Your task to perform on an android device: turn on data saver in the chrome app Image 0: 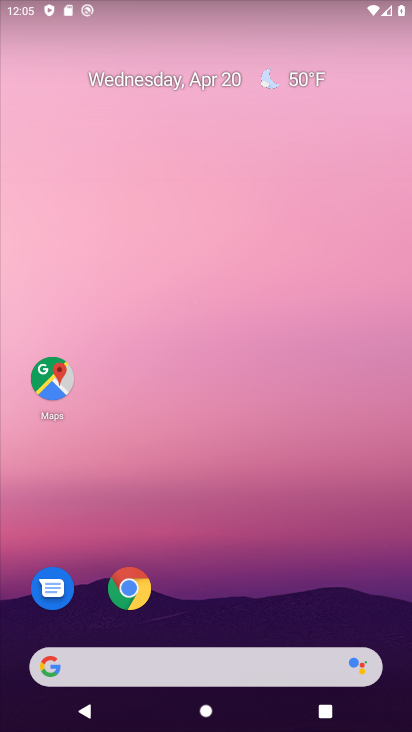
Step 0: click (129, 578)
Your task to perform on an android device: turn on data saver in the chrome app Image 1: 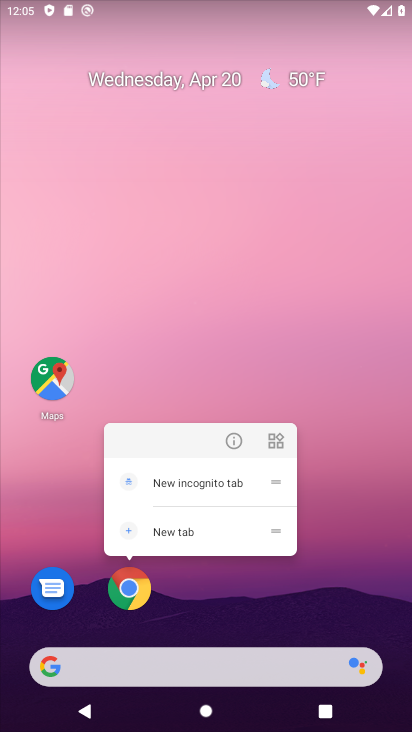
Step 1: click (129, 584)
Your task to perform on an android device: turn on data saver in the chrome app Image 2: 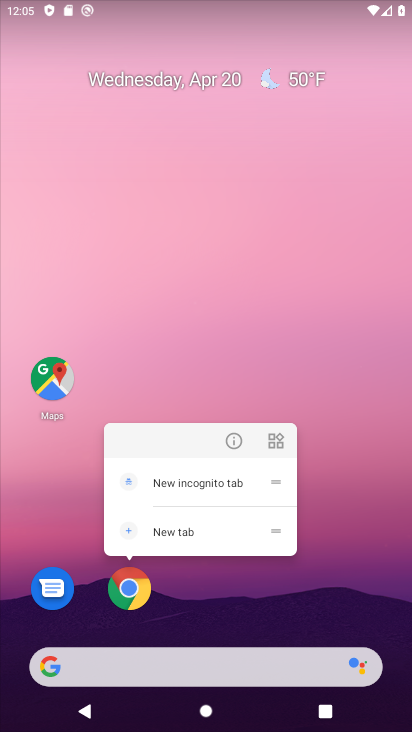
Step 2: click (130, 589)
Your task to perform on an android device: turn on data saver in the chrome app Image 3: 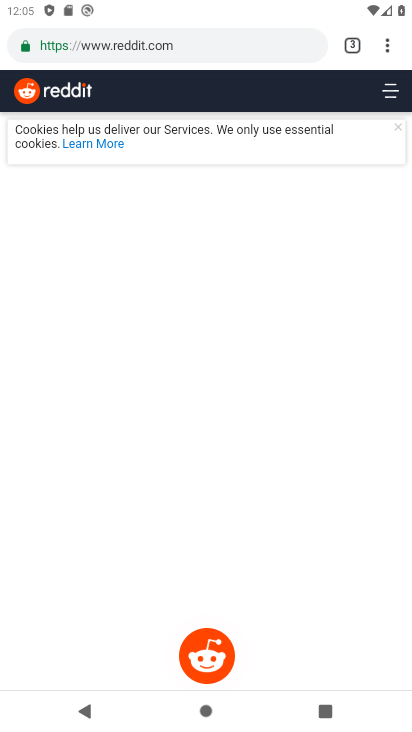
Step 3: click (387, 41)
Your task to perform on an android device: turn on data saver in the chrome app Image 4: 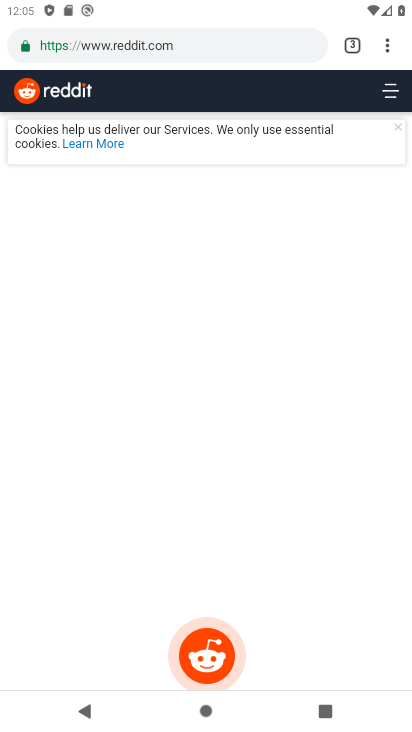
Step 4: click (386, 42)
Your task to perform on an android device: turn on data saver in the chrome app Image 5: 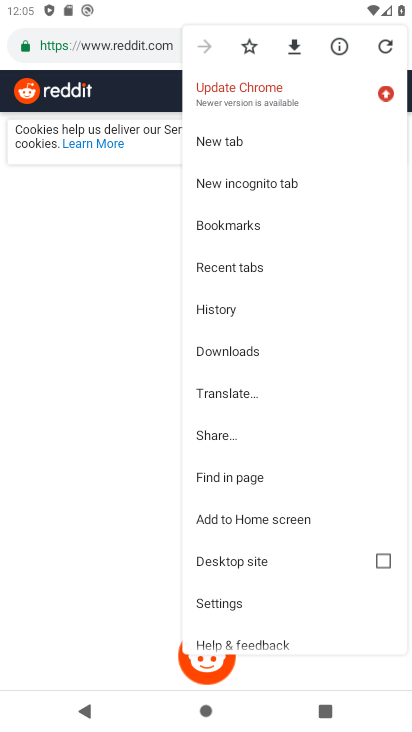
Step 5: click (244, 602)
Your task to perform on an android device: turn on data saver in the chrome app Image 6: 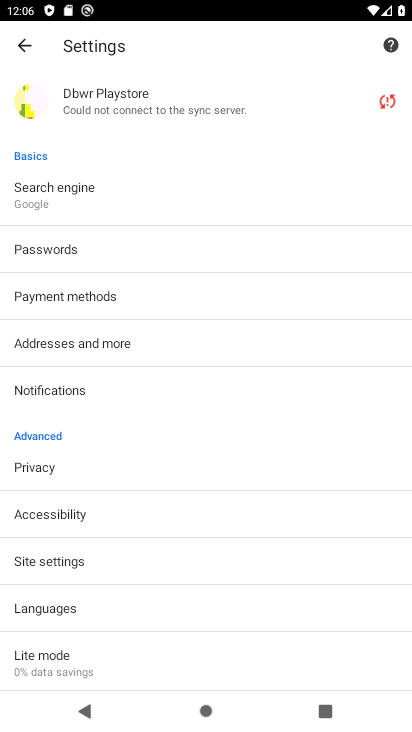
Step 6: click (96, 658)
Your task to perform on an android device: turn on data saver in the chrome app Image 7: 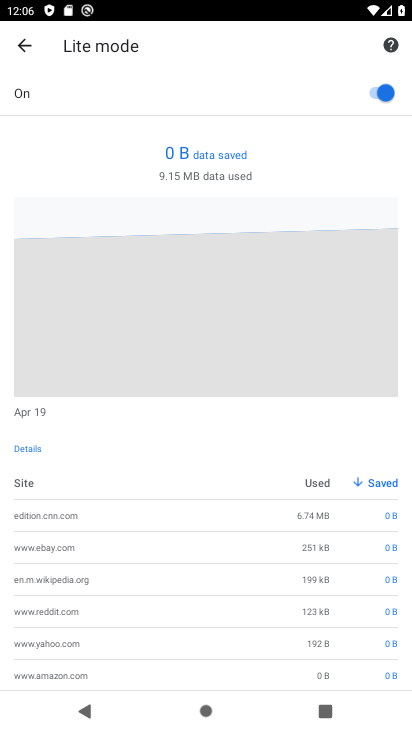
Step 7: task complete